Your task to perform on an android device: Open the Play Movies app and select the watchlist tab. Image 0: 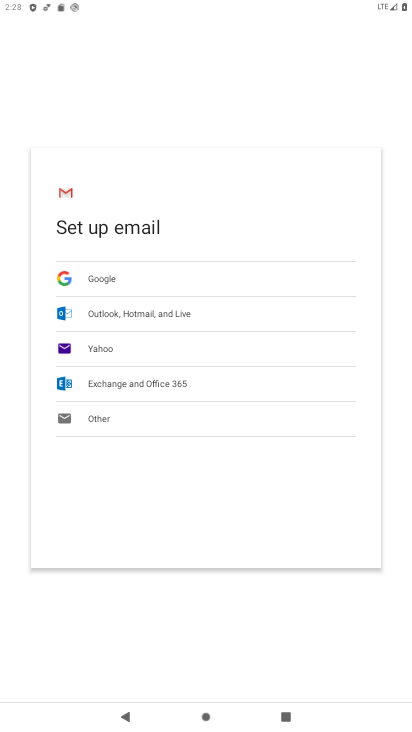
Step 0: press home button
Your task to perform on an android device: Open the Play Movies app and select the watchlist tab. Image 1: 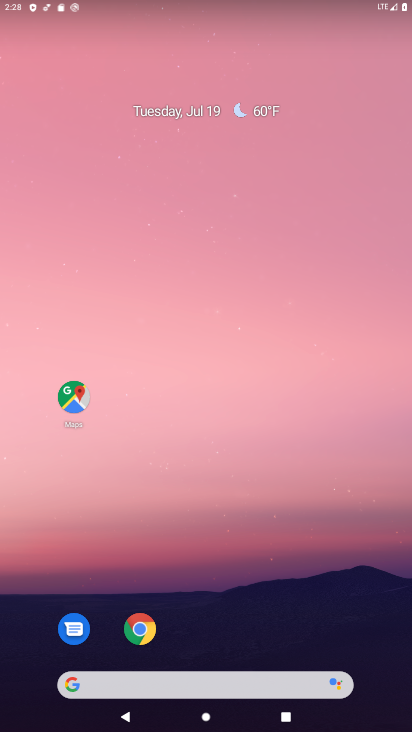
Step 1: drag from (225, 614) to (210, 151)
Your task to perform on an android device: Open the Play Movies app and select the watchlist tab. Image 2: 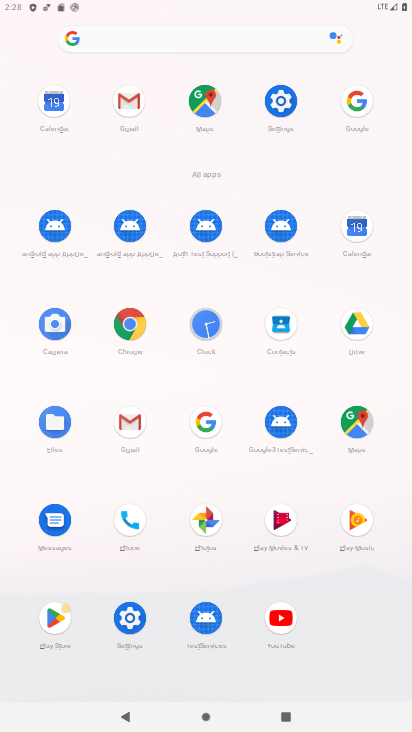
Step 2: click (279, 495)
Your task to perform on an android device: Open the Play Movies app and select the watchlist tab. Image 3: 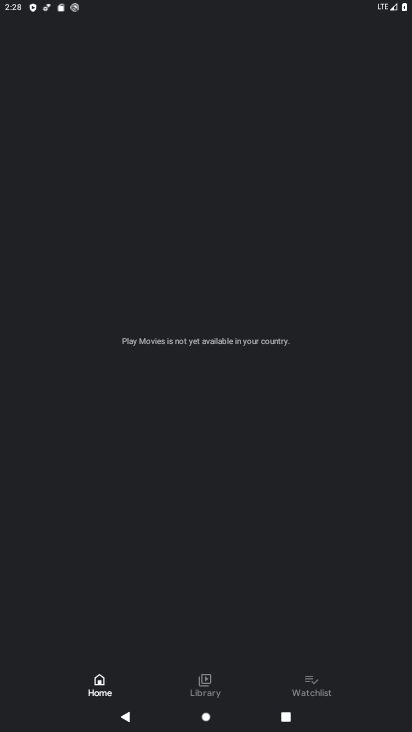
Step 3: task complete